Your task to perform on an android device: turn on priority inbox in the gmail app Image 0: 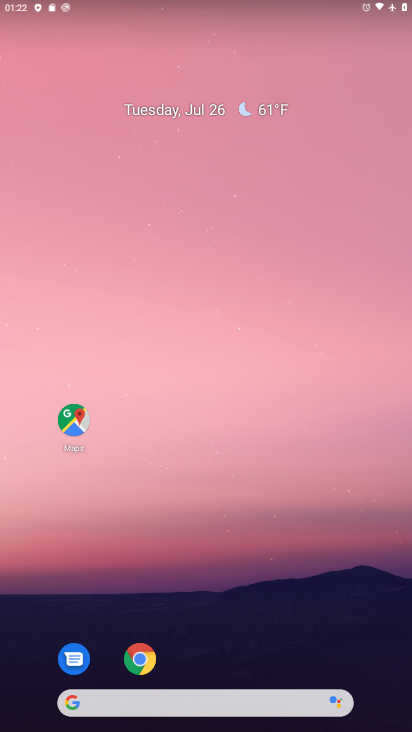
Step 0: drag from (316, 584) to (280, 17)
Your task to perform on an android device: turn on priority inbox in the gmail app Image 1: 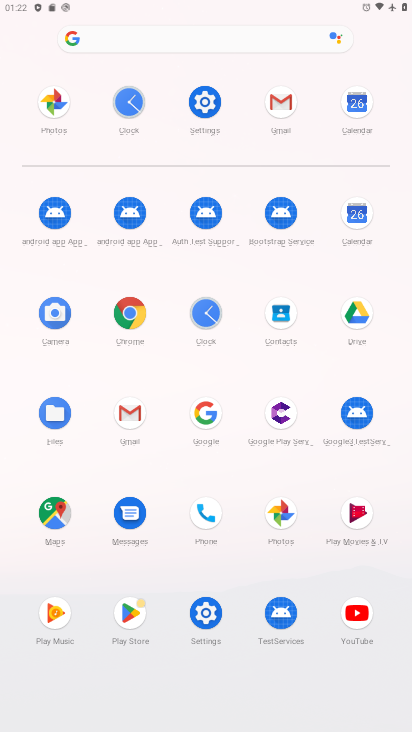
Step 1: click (294, 91)
Your task to perform on an android device: turn on priority inbox in the gmail app Image 2: 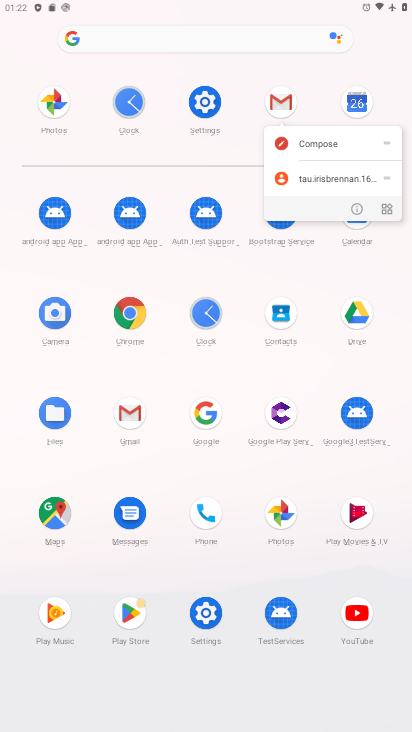
Step 2: click (274, 99)
Your task to perform on an android device: turn on priority inbox in the gmail app Image 3: 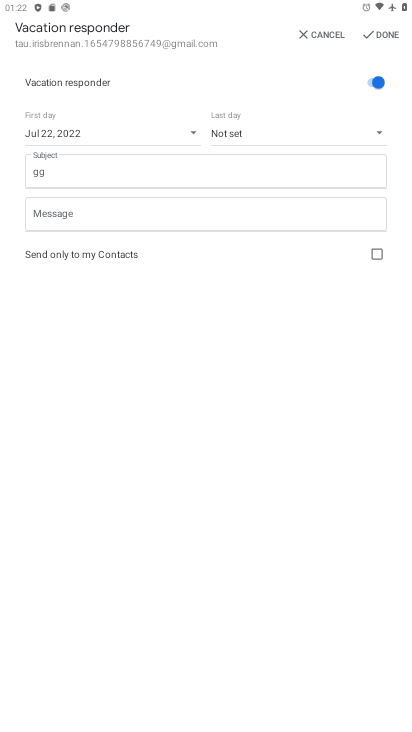
Step 3: press back button
Your task to perform on an android device: turn on priority inbox in the gmail app Image 4: 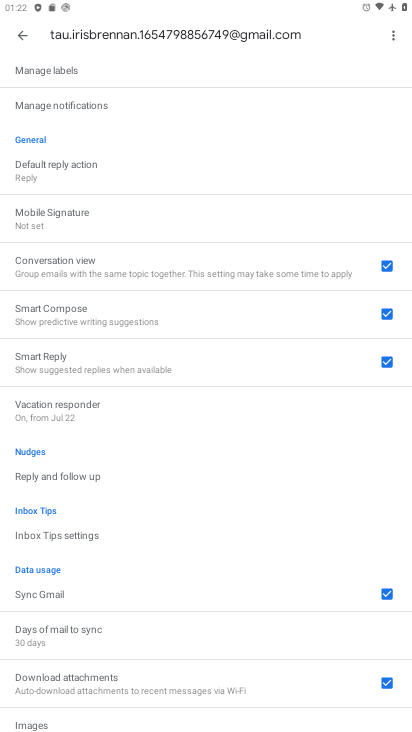
Step 4: drag from (90, 135) to (181, 589)
Your task to perform on an android device: turn on priority inbox in the gmail app Image 5: 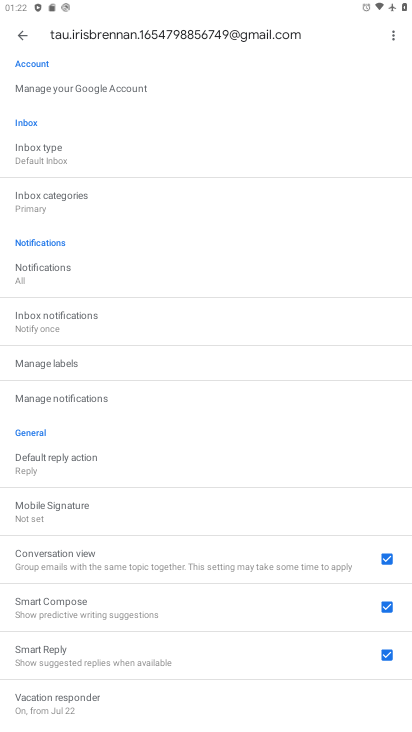
Step 5: click (36, 153)
Your task to perform on an android device: turn on priority inbox in the gmail app Image 6: 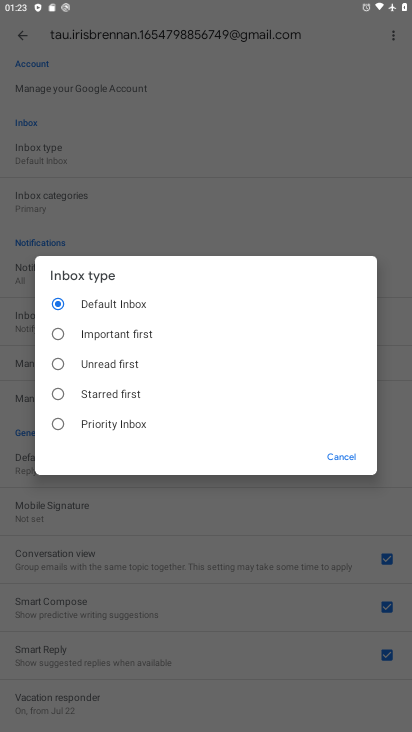
Step 6: task complete